Your task to perform on an android device: Go to sound settings Image 0: 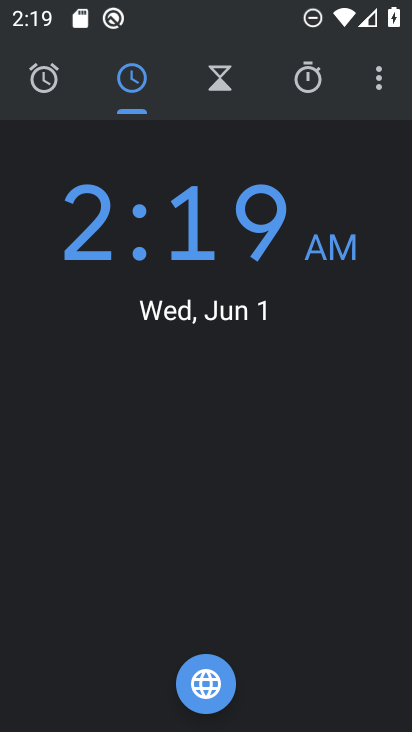
Step 0: press home button
Your task to perform on an android device: Go to sound settings Image 1: 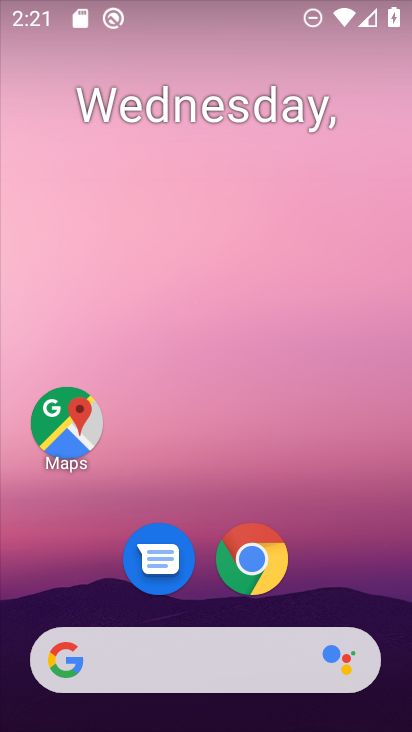
Step 1: drag from (410, 583) to (344, 27)
Your task to perform on an android device: Go to sound settings Image 2: 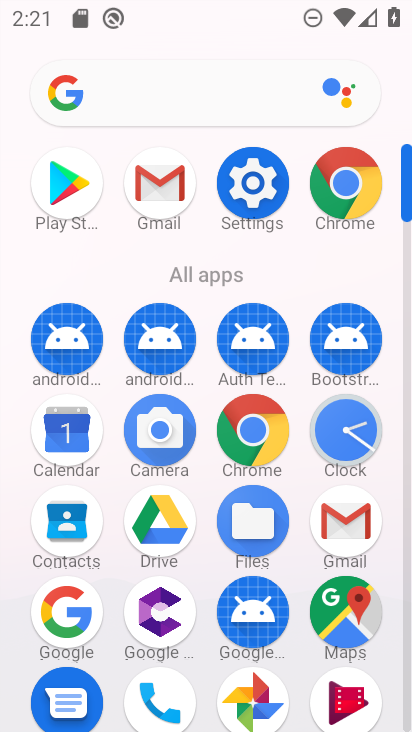
Step 2: click (270, 218)
Your task to perform on an android device: Go to sound settings Image 3: 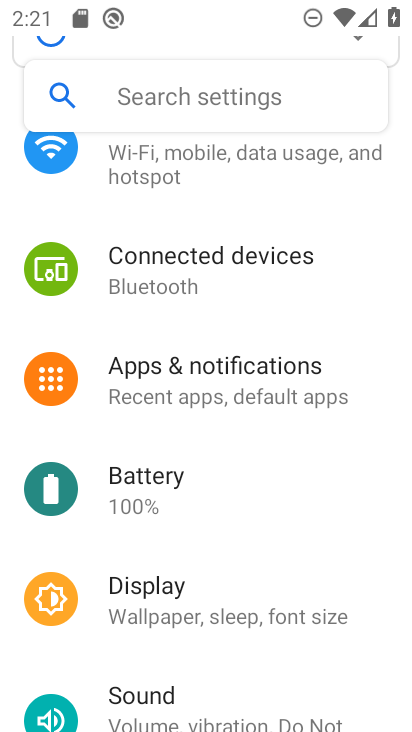
Step 3: click (174, 686)
Your task to perform on an android device: Go to sound settings Image 4: 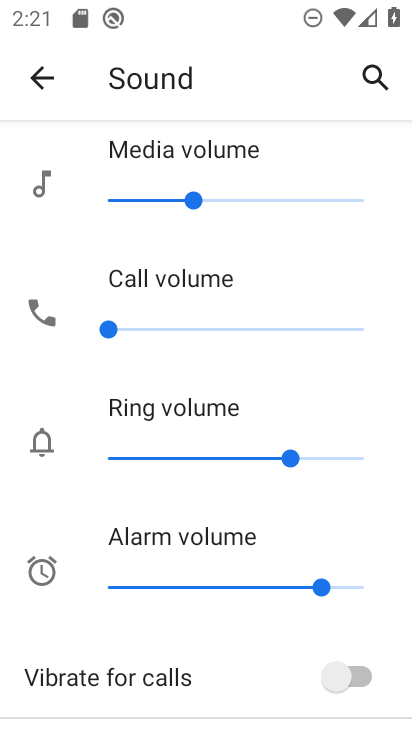
Step 4: task complete